Your task to perform on an android device: Go to sound settings Image 0: 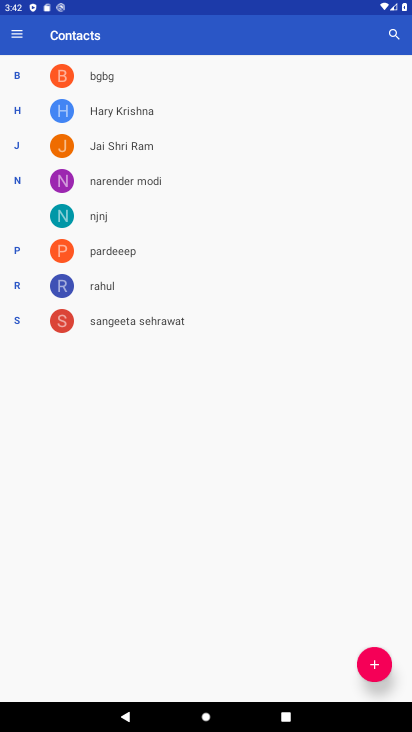
Step 0: press home button
Your task to perform on an android device: Go to sound settings Image 1: 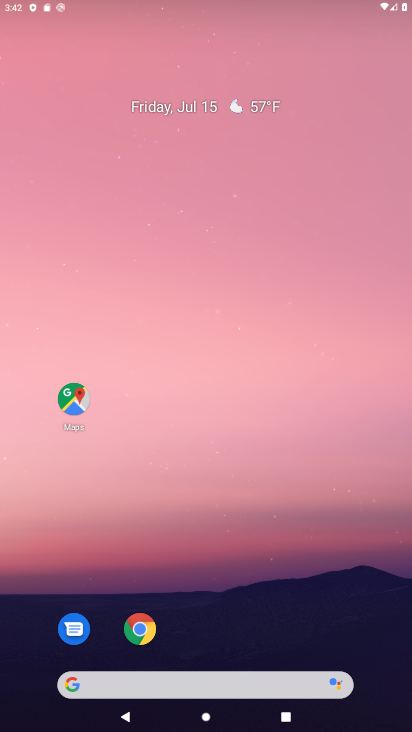
Step 1: drag from (232, 514) to (147, 7)
Your task to perform on an android device: Go to sound settings Image 2: 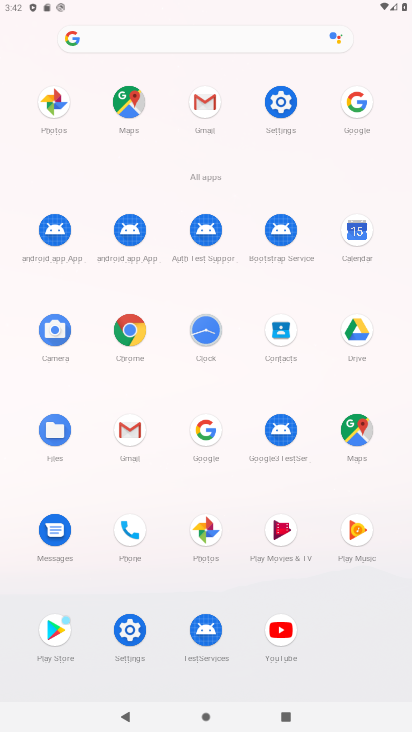
Step 2: click (293, 100)
Your task to perform on an android device: Go to sound settings Image 3: 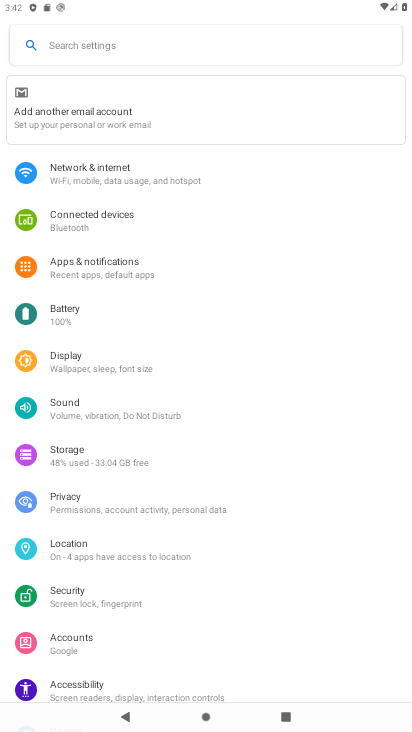
Step 3: click (76, 408)
Your task to perform on an android device: Go to sound settings Image 4: 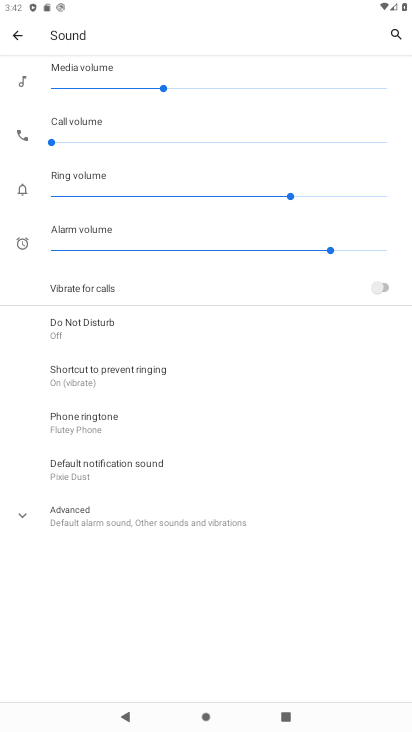
Step 4: task complete